Your task to perform on an android device: check data usage Image 0: 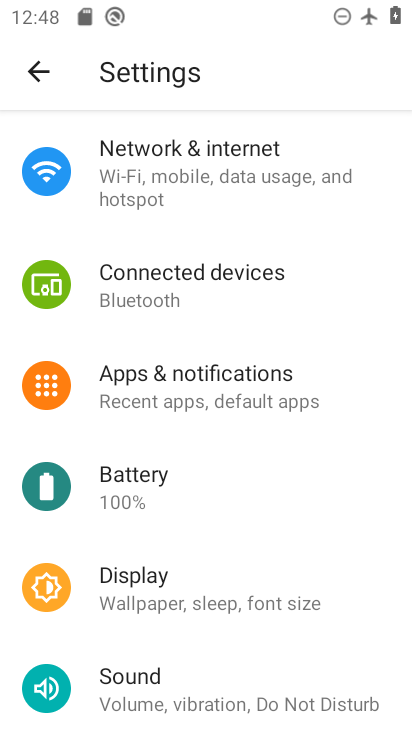
Step 0: press home button
Your task to perform on an android device: check data usage Image 1: 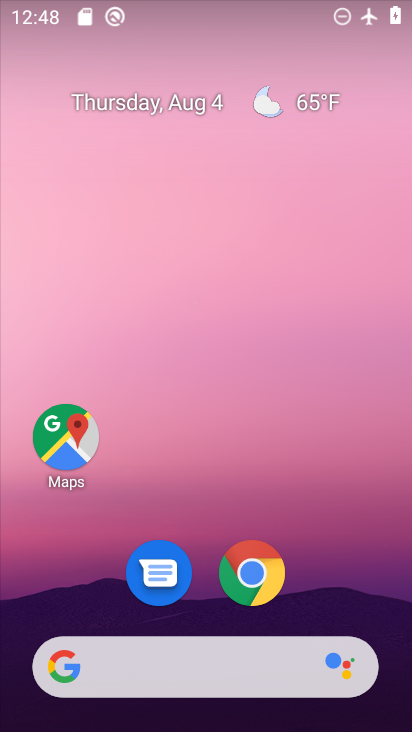
Step 1: drag from (340, 547) to (348, 162)
Your task to perform on an android device: check data usage Image 2: 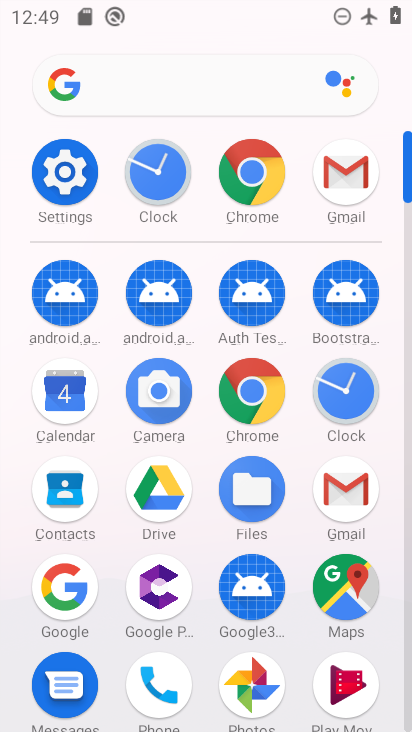
Step 2: click (70, 174)
Your task to perform on an android device: check data usage Image 3: 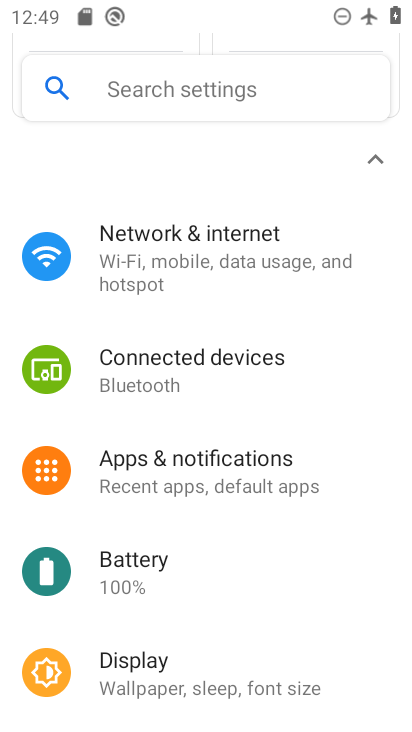
Step 3: click (169, 240)
Your task to perform on an android device: check data usage Image 4: 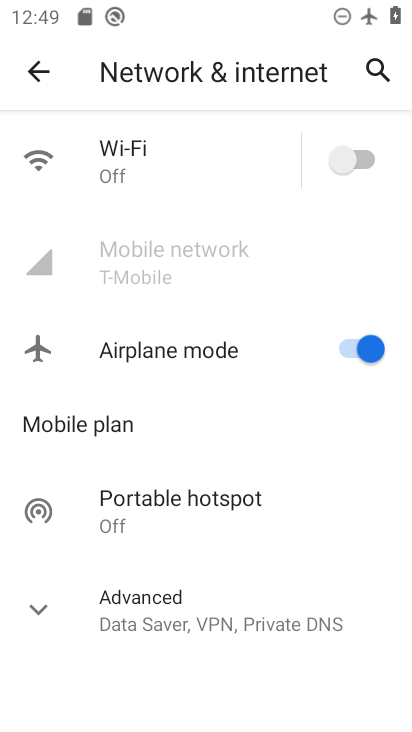
Step 4: click (197, 161)
Your task to perform on an android device: check data usage Image 5: 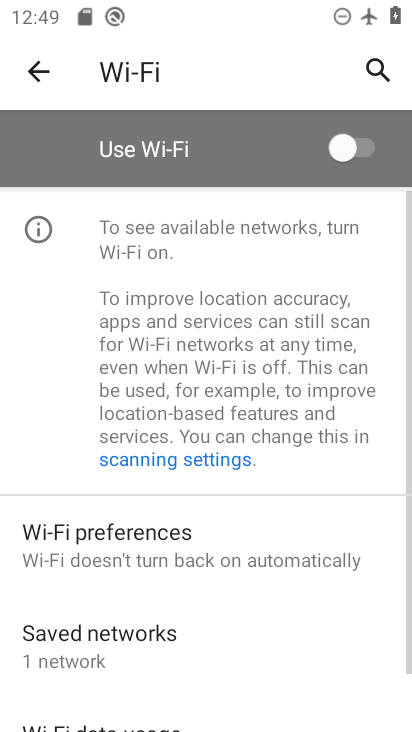
Step 5: drag from (265, 586) to (267, 240)
Your task to perform on an android device: check data usage Image 6: 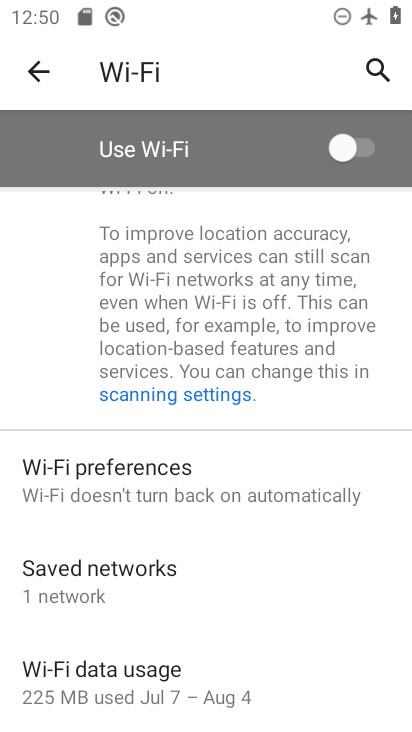
Step 6: click (175, 676)
Your task to perform on an android device: check data usage Image 7: 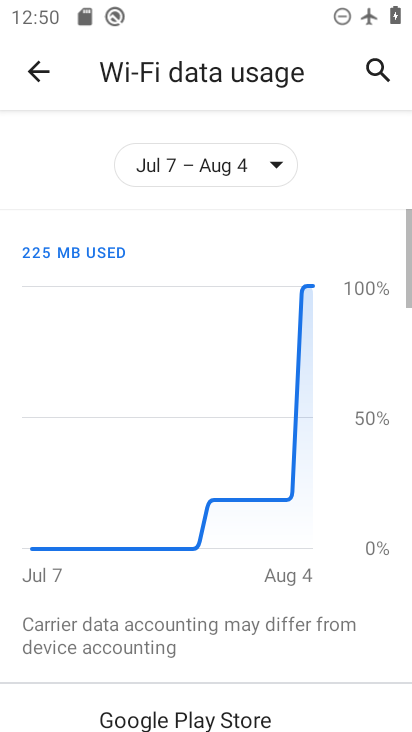
Step 7: task complete